Your task to perform on an android device: turn off sleep mode Image 0: 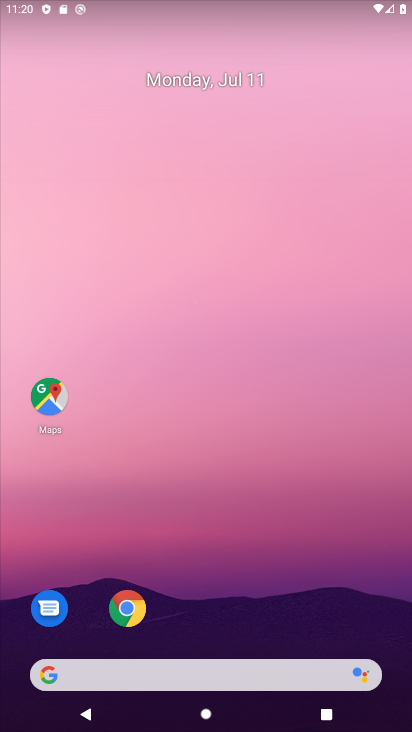
Step 0: drag from (234, 11) to (297, 557)
Your task to perform on an android device: turn off sleep mode Image 1: 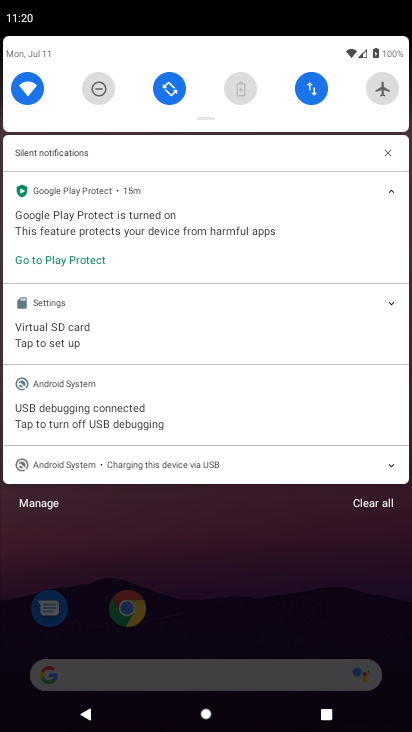
Step 1: drag from (246, 53) to (216, 701)
Your task to perform on an android device: turn off sleep mode Image 2: 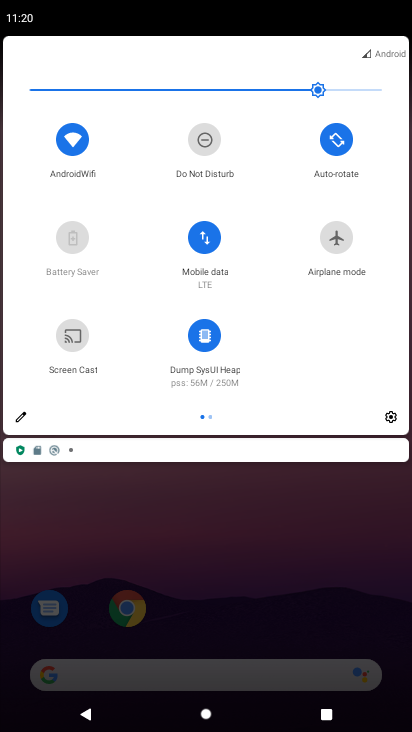
Step 2: click (389, 417)
Your task to perform on an android device: turn off sleep mode Image 3: 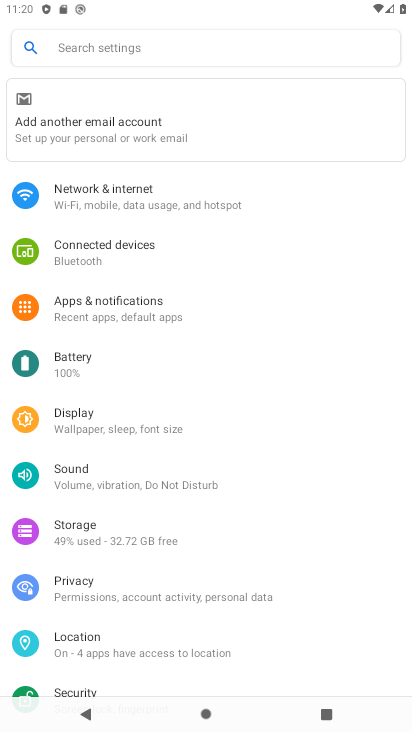
Step 3: task complete